Your task to perform on an android device: turn off sleep mode Image 0: 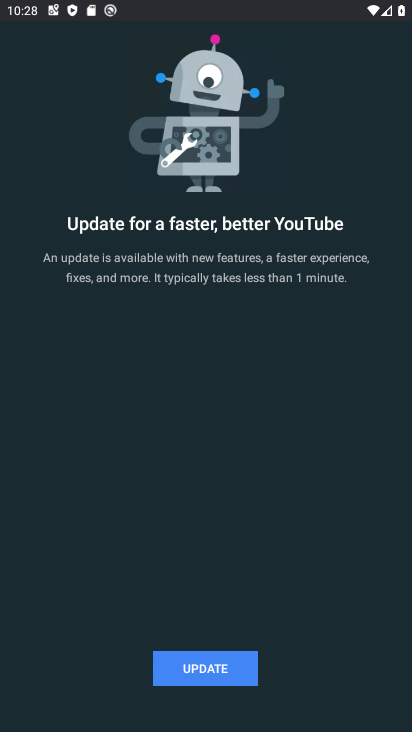
Step 0: press home button
Your task to perform on an android device: turn off sleep mode Image 1: 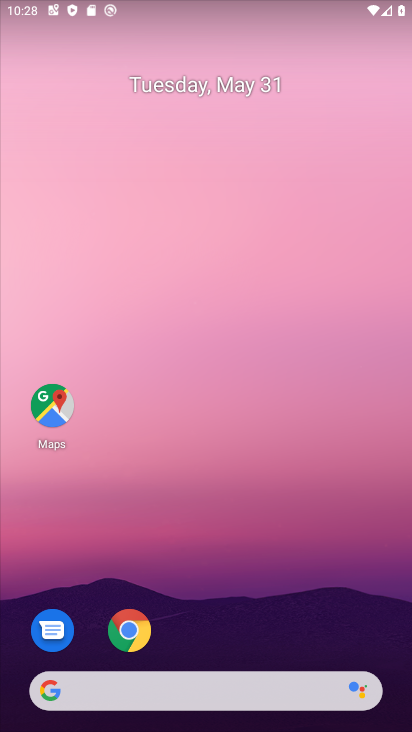
Step 1: drag from (266, 537) to (228, 118)
Your task to perform on an android device: turn off sleep mode Image 2: 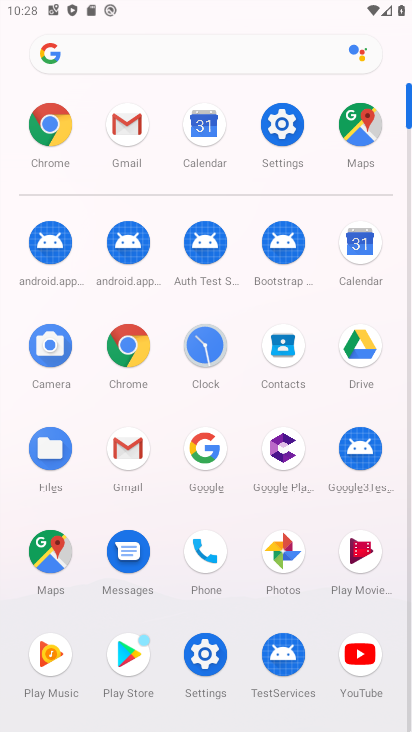
Step 2: click (290, 125)
Your task to perform on an android device: turn off sleep mode Image 3: 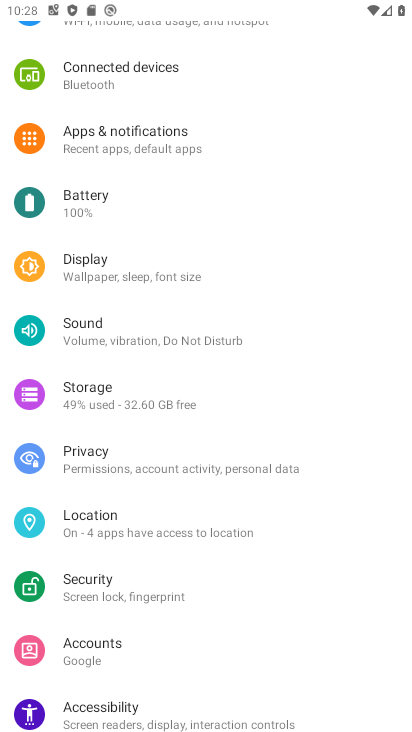
Step 3: click (145, 283)
Your task to perform on an android device: turn off sleep mode Image 4: 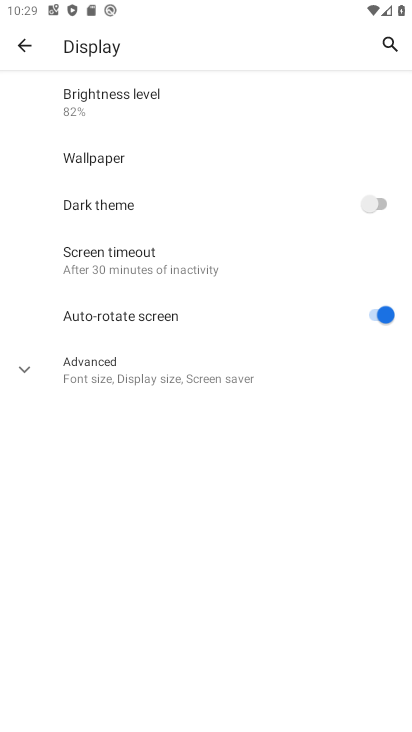
Step 4: task complete